Your task to perform on an android device: change keyboard looks Image 0: 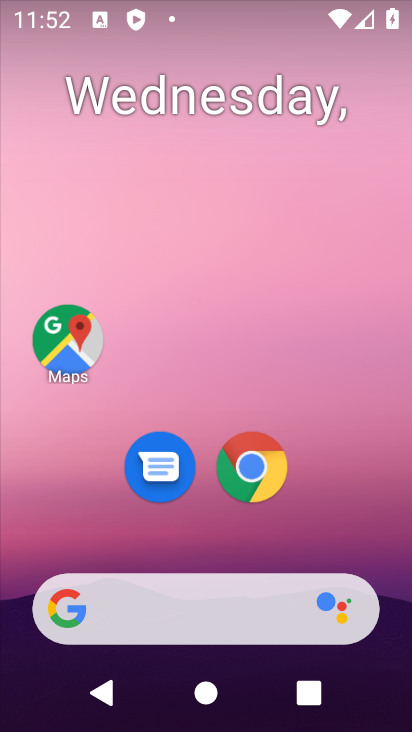
Step 0: drag from (200, 548) to (208, 113)
Your task to perform on an android device: change keyboard looks Image 1: 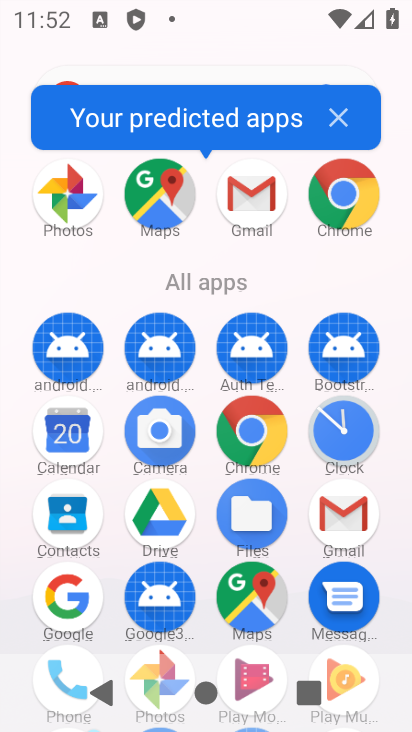
Step 1: drag from (200, 587) to (210, 227)
Your task to perform on an android device: change keyboard looks Image 2: 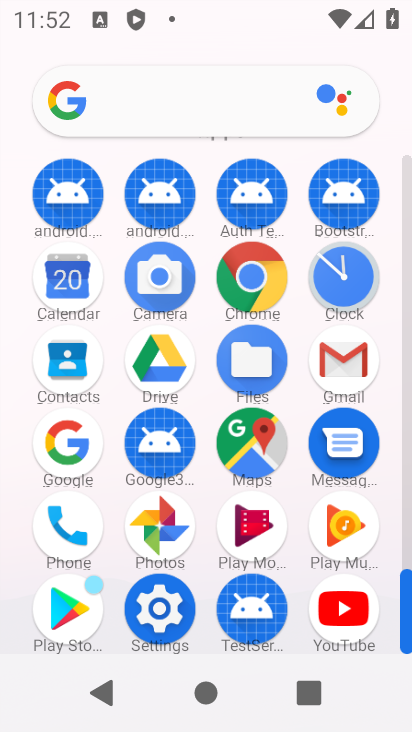
Step 2: click (148, 586)
Your task to perform on an android device: change keyboard looks Image 3: 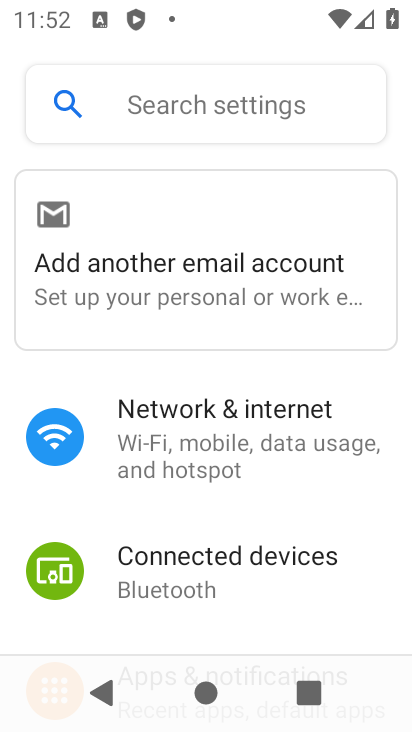
Step 3: drag from (258, 537) to (269, 132)
Your task to perform on an android device: change keyboard looks Image 4: 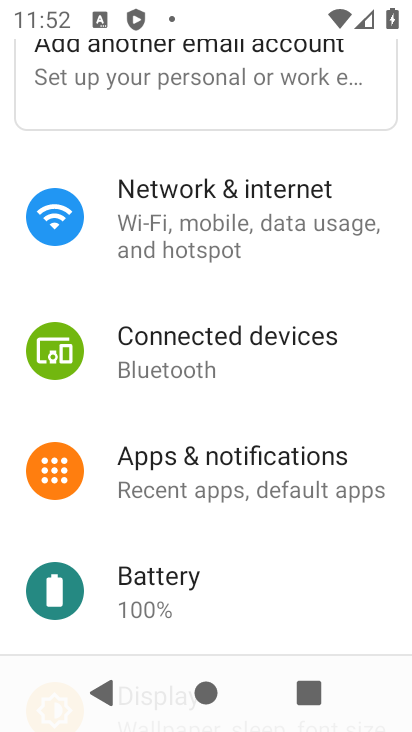
Step 4: drag from (224, 550) to (245, 285)
Your task to perform on an android device: change keyboard looks Image 5: 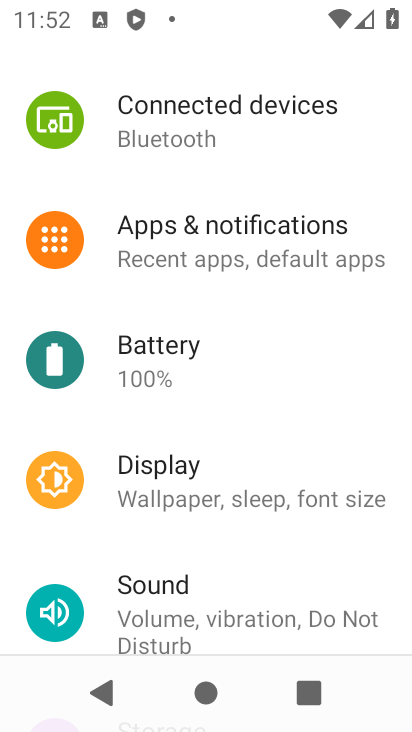
Step 5: drag from (233, 421) to (252, 261)
Your task to perform on an android device: change keyboard looks Image 6: 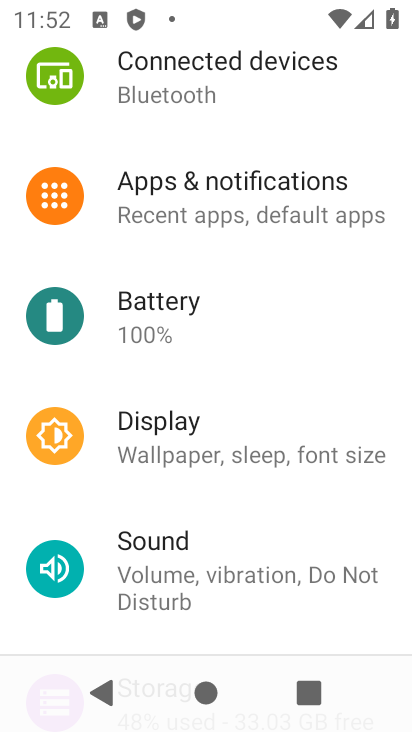
Step 6: drag from (230, 521) to (255, 237)
Your task to perform on an android device: change keyboard looks Image 7: 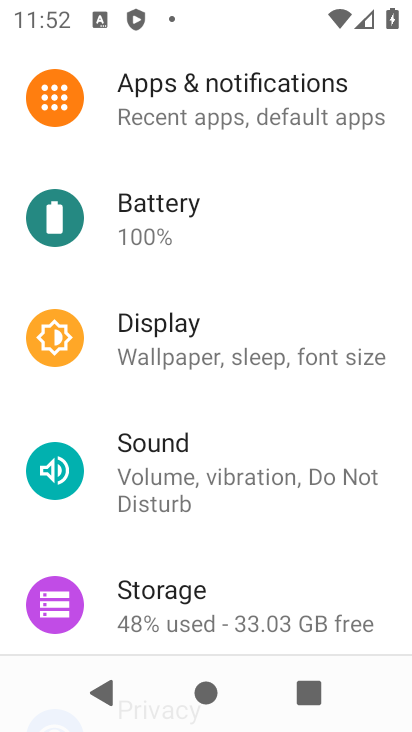
Step 7: drag from (251, 595) to (256, 210)
Your task to perform on an android device: change keyboard looks Image 8: 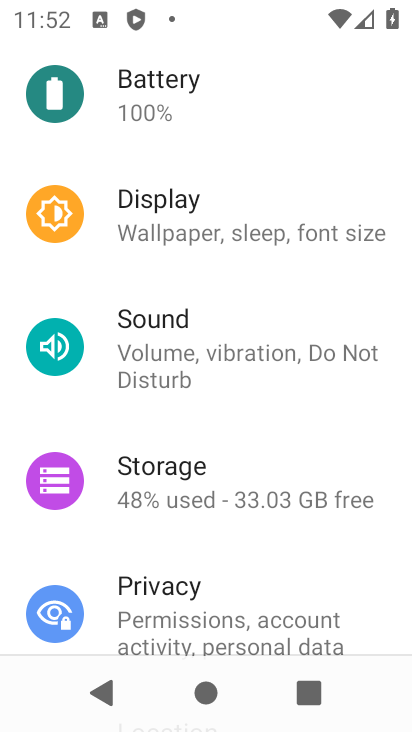
Step 8: drag from (250, 563) to (263, 233)
Your task to perform on an android device: change keyboard looks Image 9: 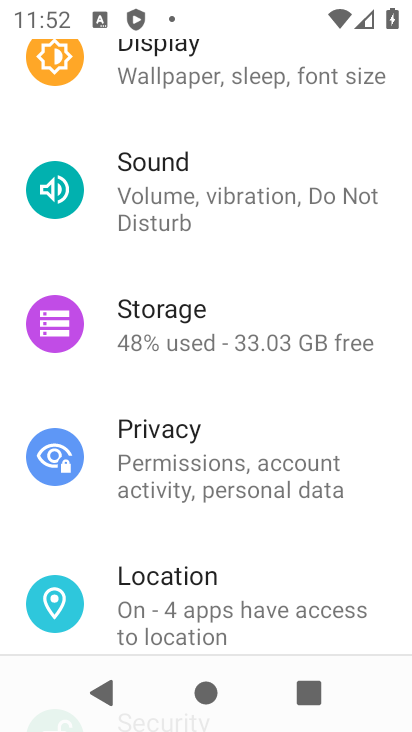
Step 9: drag from (202, 571) to (230, 215)
Your task to perform on an android device: change keyboard looks Image 10: 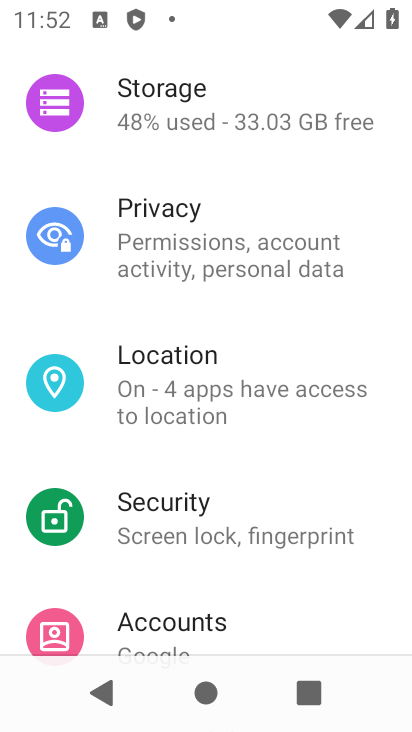
Step 10: drag from (220, 566) to (239, 217)
Your task to perform on an android device: change keyboard looks Image 11: 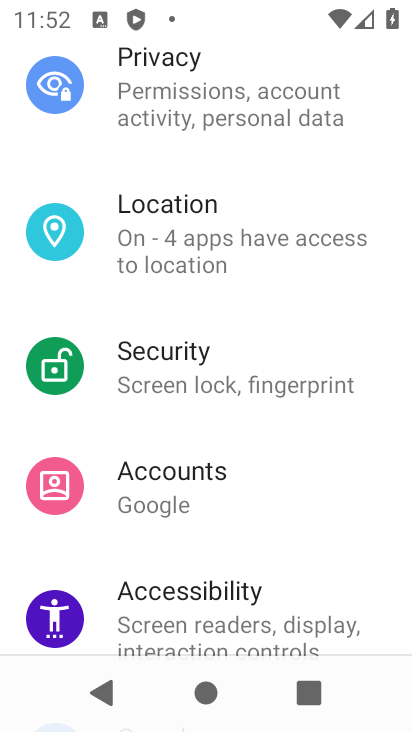
Step 11: drag from (217, 558) to (271, 160)
Your task to perform on an android device: change keyboard looks Image 12: 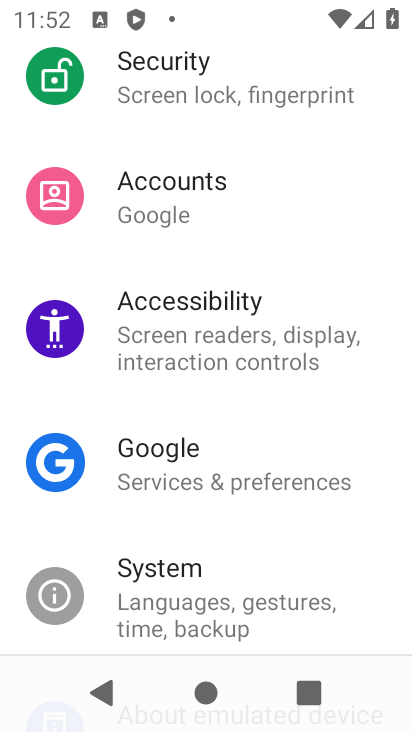
Step 12: click (201, 561)
Your task to perform on an android device: change keyboard looks Image 13: 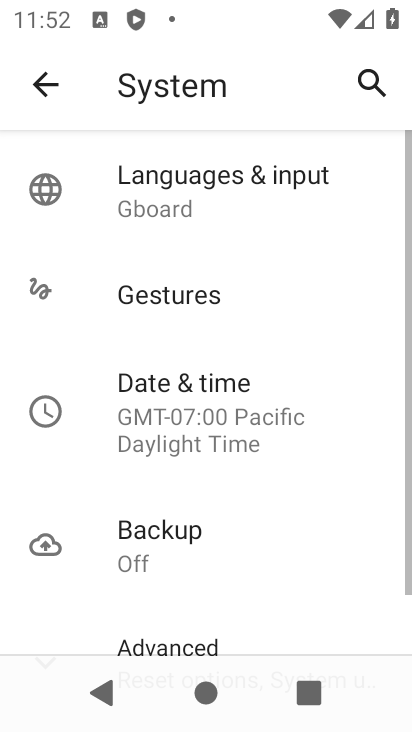
Step 13: click (242, 205)
Your task to perform on an android device: change keyboard looks Image 14: 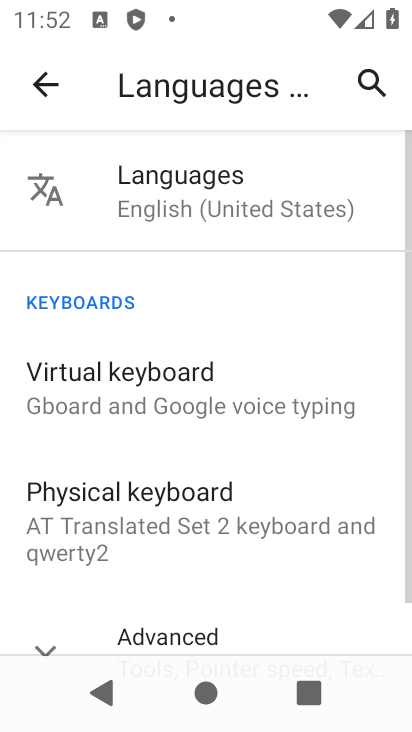
Step 14: click (174, 387)
Your task to perform on an android device: change keyboard looks Image 15: 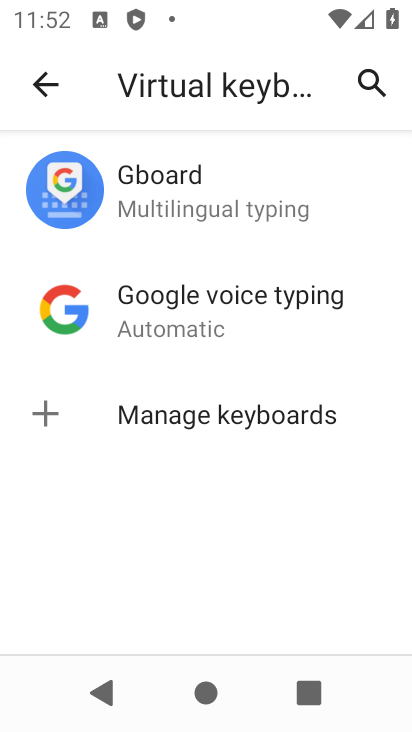
Step 15: click (171, 199)
Your task to perform on an android device: change keyboard looks Image 16: 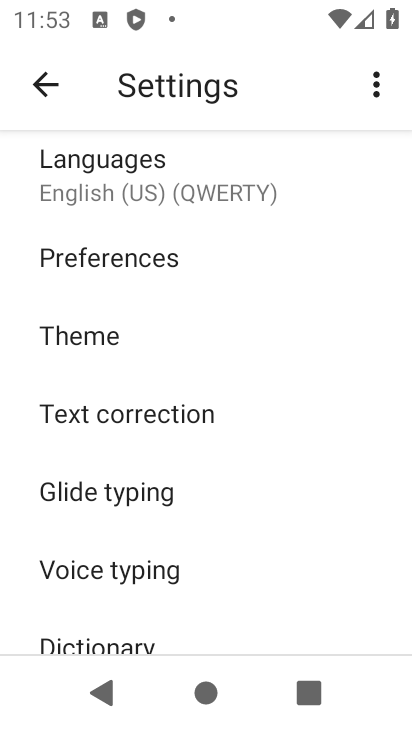
Step 16: click (96, 341)
Your task to perform on an android device: change keyboard looks Image 17: 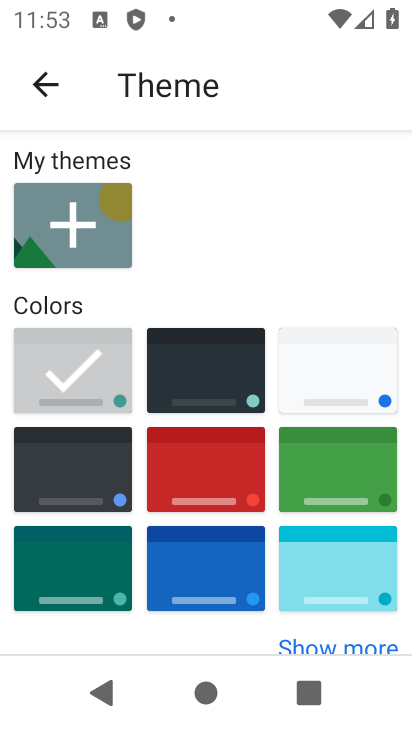
Step 17: click (172, 362)
Your task to perform on an android device: change keyboard looks Image 18: 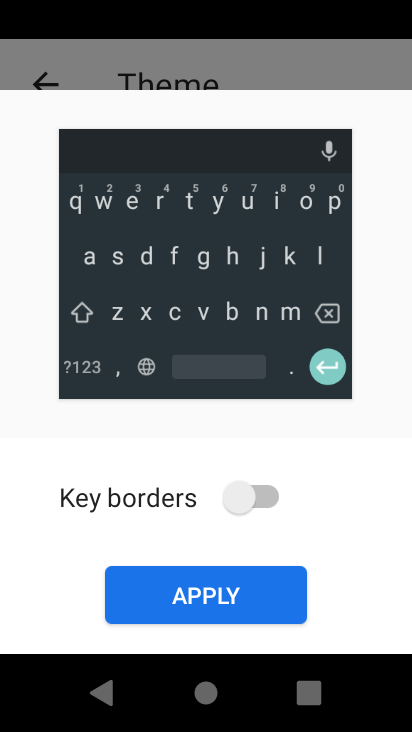
Step 18: click (252, 584)
Your task to perform on an android device: change keyboard looks Image 19: 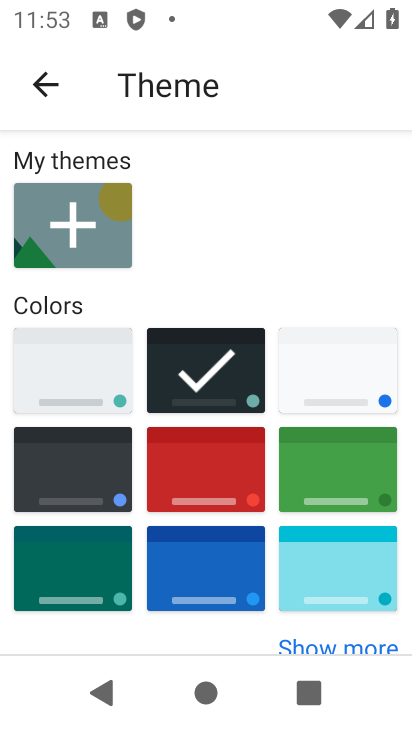
Step 19: task complete